Your task to perform on an android device: change the clock style Image 0: 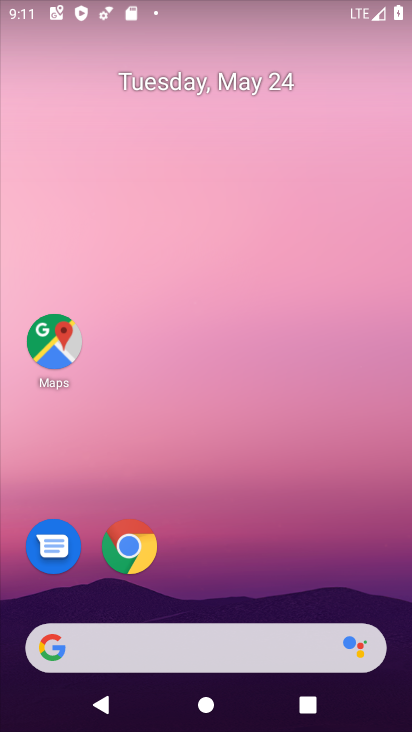
Step 0: drag from (303, 527) to (331, 48)
Your task to perform on an android device: change the clock style Image 1: 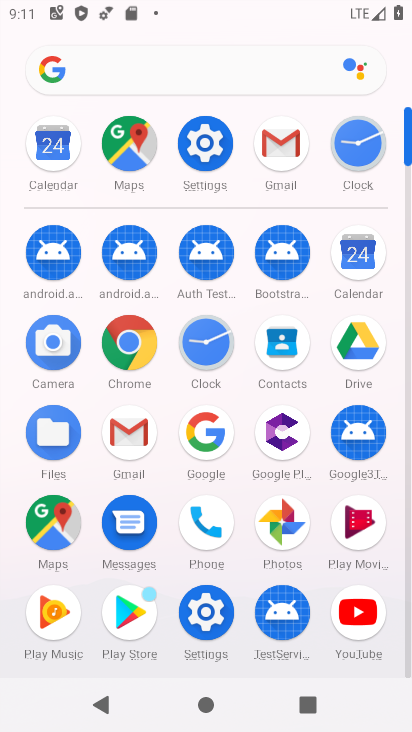
Step 1: click (349, 144)
Your task to perform on an android device: change the clock style Image 2: 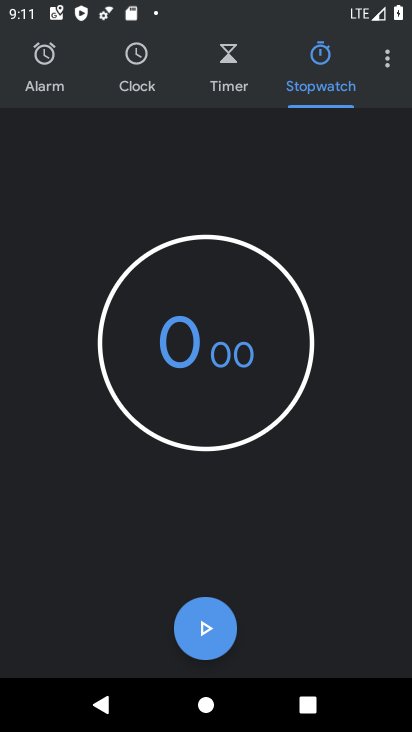
Step 2: click (143, 48)
Your task to perform on an android device: change the clock style Image 3: 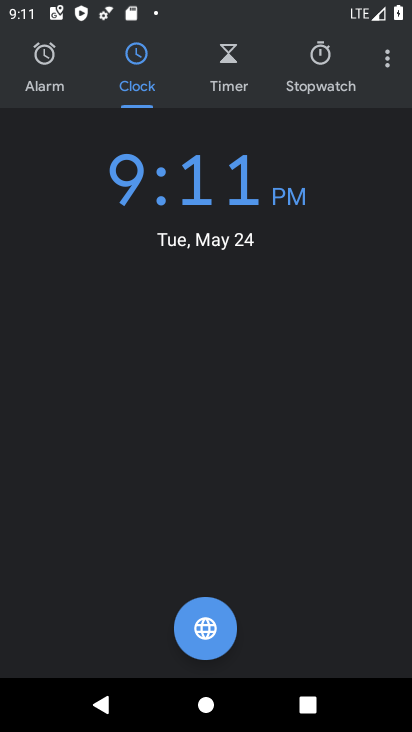
Step 3: click (379, 47)
Your task to perform on an android device: change the clock style Image 4: 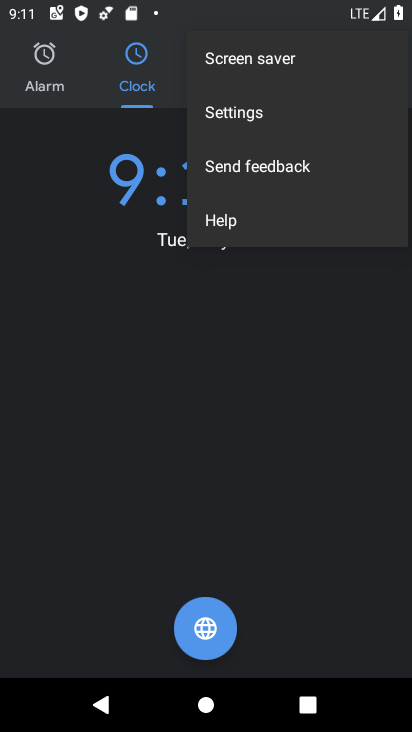
Step 4: click (296, 115)
Your task to perform on an android device: change the clock style Image 5: 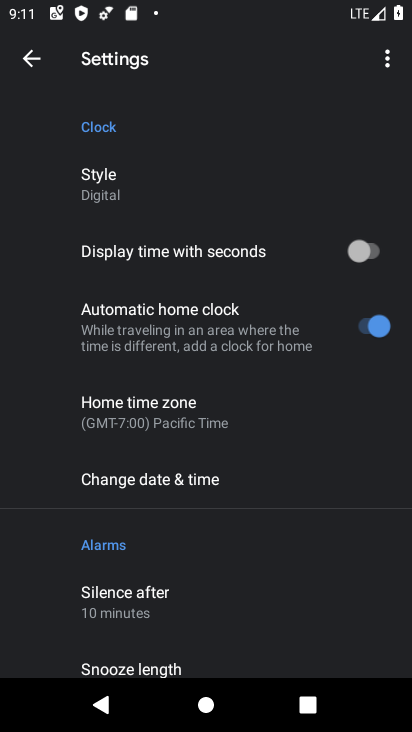
Step 5: click (159, 192)
Your task to perform on an android device: change the clock style Image 6: 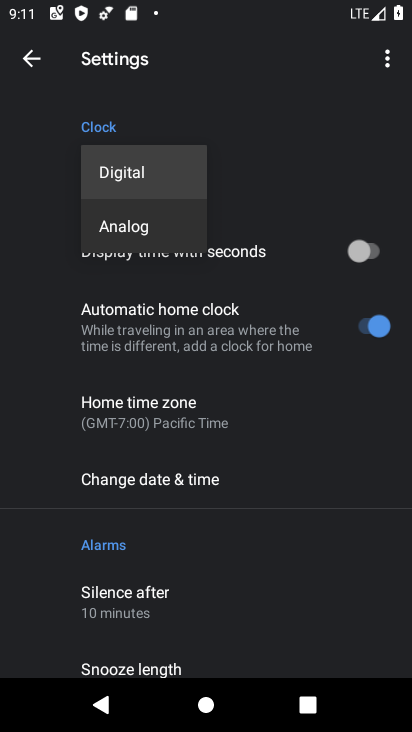
Step 6: click (161, 224)
Your task to perform on an android device: change the clock style Image 7: 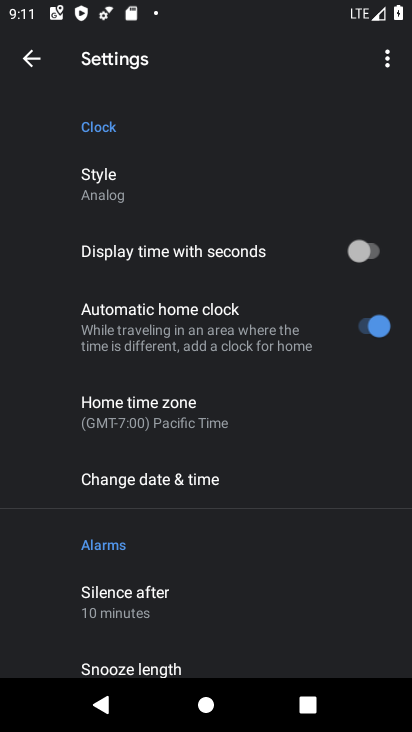
Step 7: click (27, 55)
Your task to perform on an android device: change the clock style Image 8: 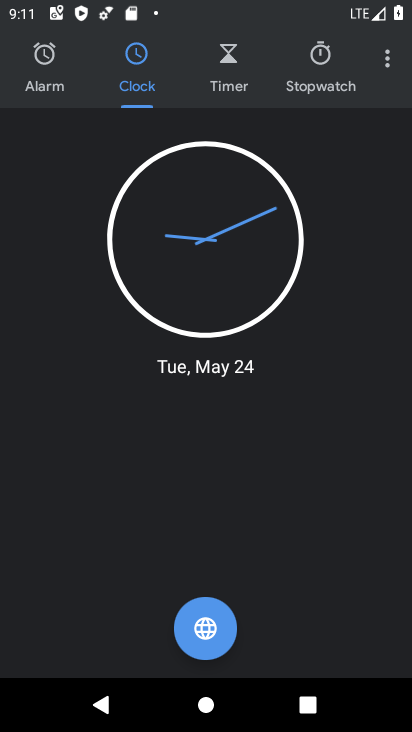
Step 8: task complete